Your task to perform on an android device: Go to ESPN.com Image 0: 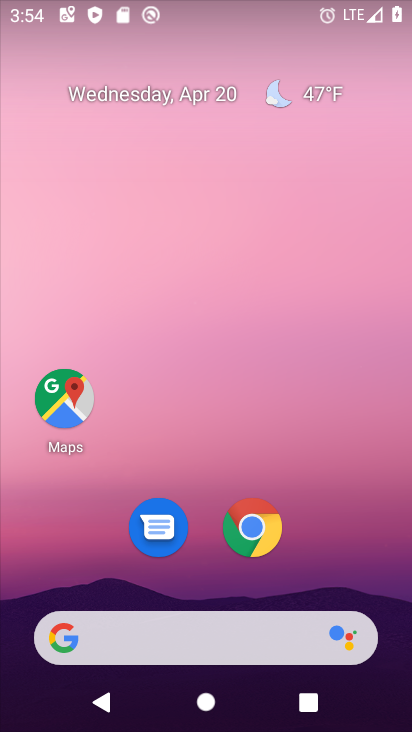
Step 0: click (237, 547)
Your task to perform on an android device: Go to ESPN.com Image 1: 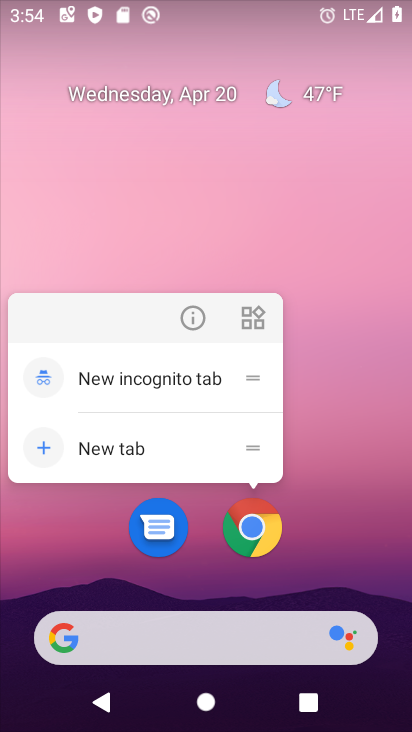
Step 1: click (262, 519)
Your task to perform on an android device: Go to ESPN.com Image 2: 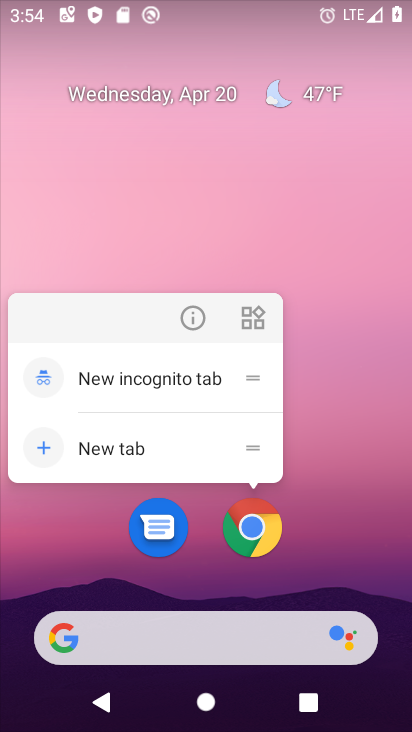
Step 2: click (262, 519)
Your task to perform on an android device: Go to ESPN.com Image 3: 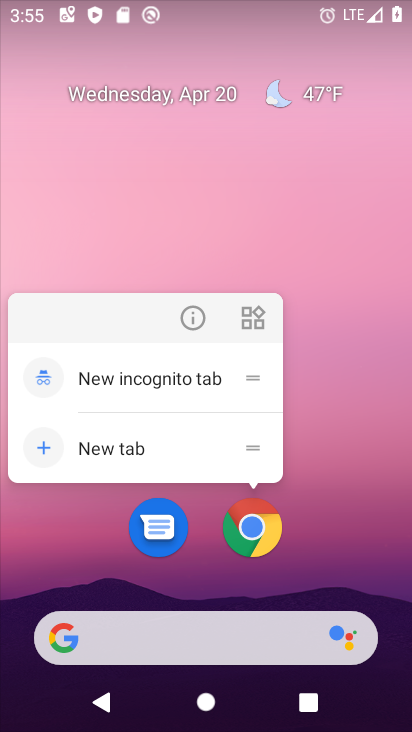
Step 3: click (262, 519)
Your task to perform on an android device: Go to ESPN.com Image 4: 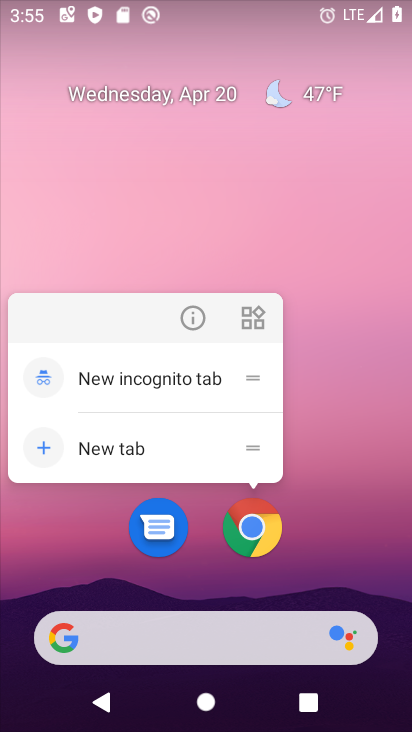
Step 4: click (255, 530)
Your task to perform on an android device: Go to ESPN.com Image 5: 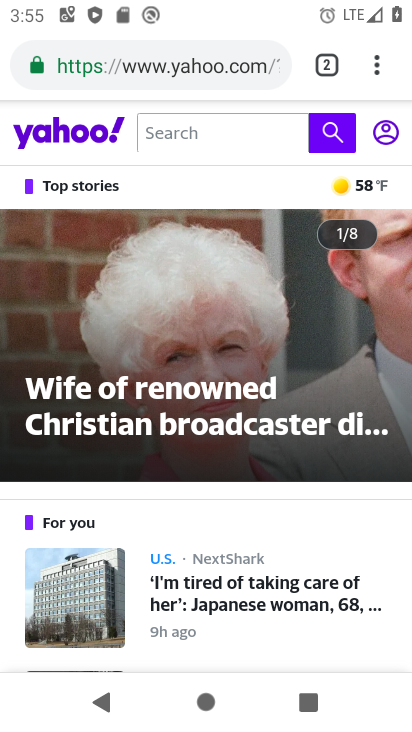
Step 5: click (233, 54)
Your task to perform on an android device: Go to ESPN.com Image 6: 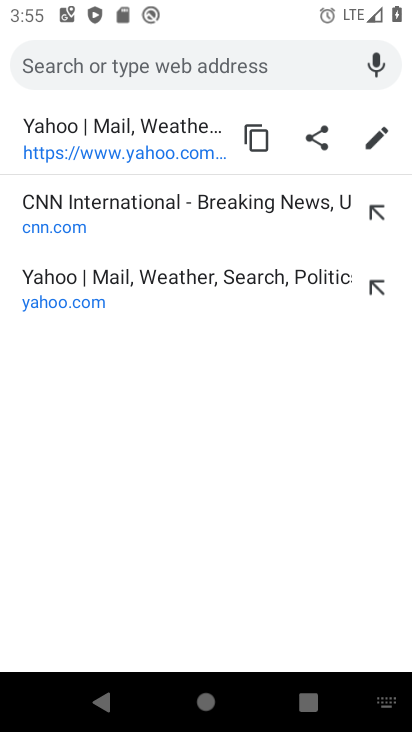
Step 6: type "ESPN.com"
Your task to perform on an android device: Go to ESPN.com Image 7: 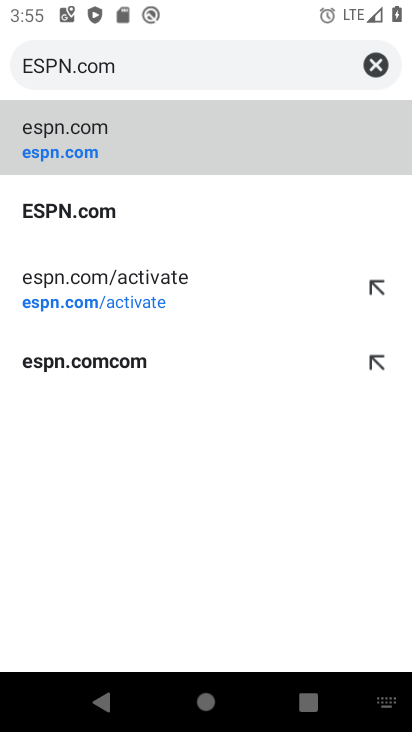
Step 7: click (72, 167)
Your task to perform on an android device: Go to ESPN.com Image 8: 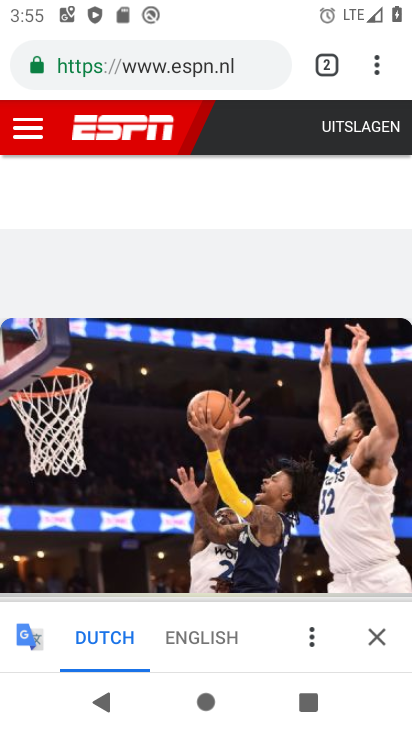
Step 8: task complete